Your task to perform on an android device: turn off airplane mode Image 0: 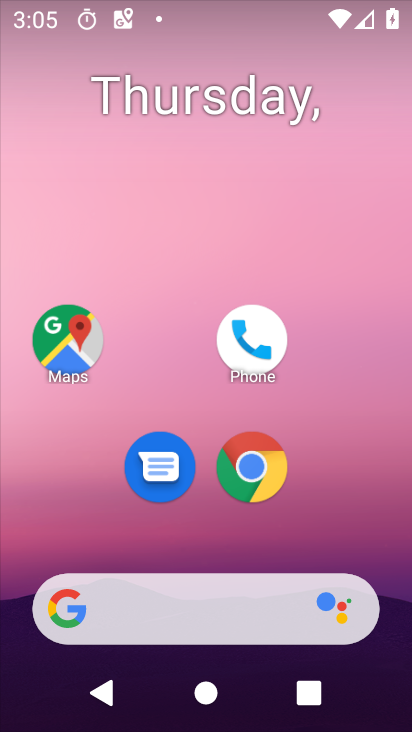
Step 0: drag from (213, 538) to (196, 301)
Your task to perform on an android device: turn off airplane mode Image 1: 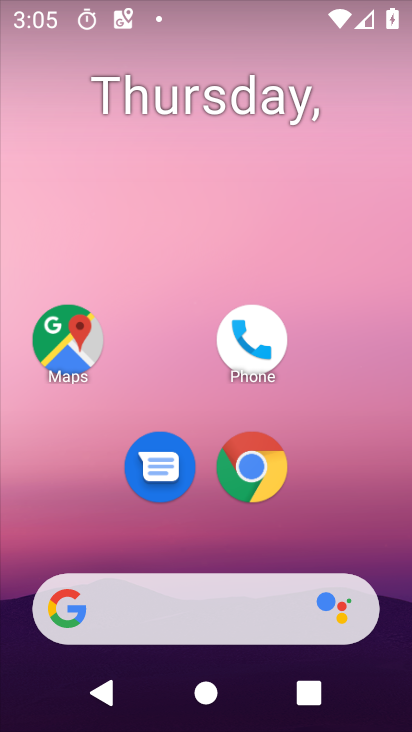
Step 1: drag from (201, 540) to (202, 134)
Your task to perform on an android device: turn off airplane mode Image 2: 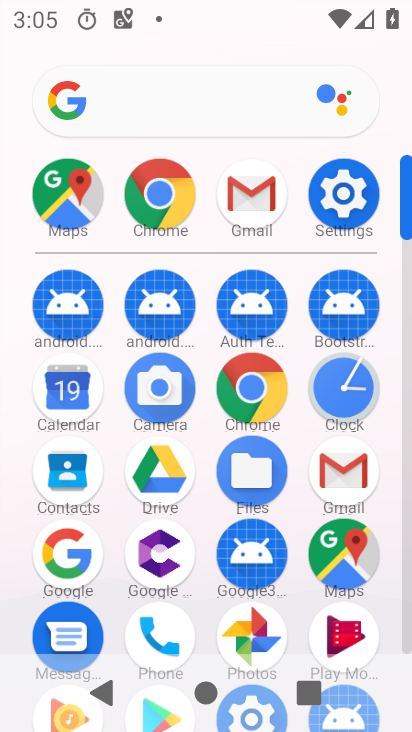
Step 2: click (348, 183)
Your task to perform on an android device: turn off airplane mode Image 3: 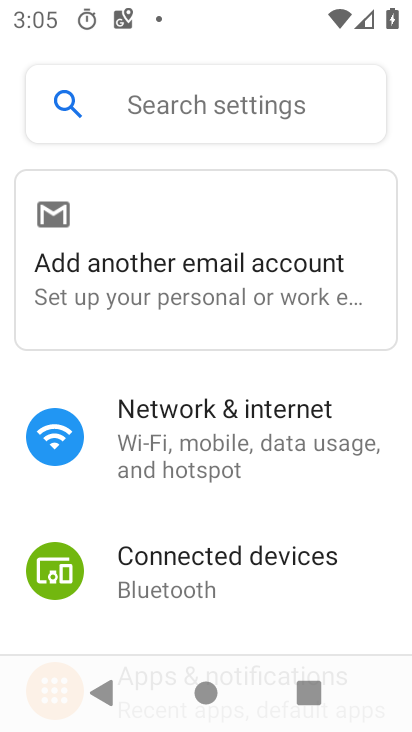
Step 3: click (175, 441)
Your task to perform on an android device: turn off airplane mode Image 4: 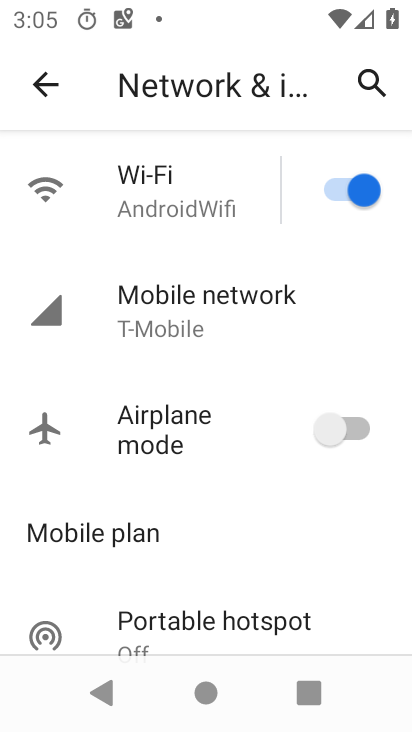
Step 4: task complete